Your task to perform on an android device: turn off javascript in the chrome app Image 0: 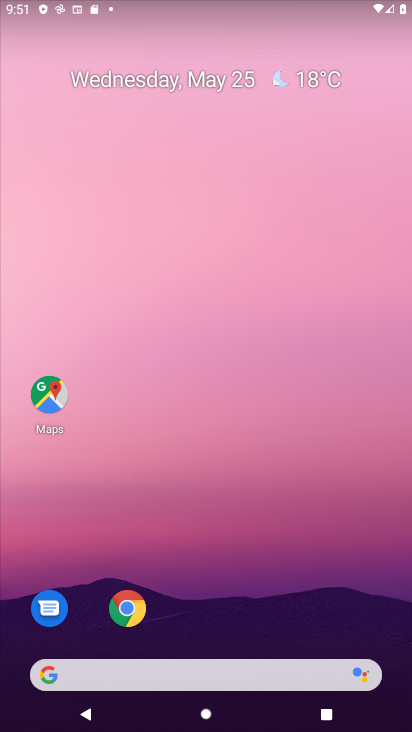
Step 0: click (133, 609)
Your task to perform on an android device: turn off javascript in the chrome app Image 1: 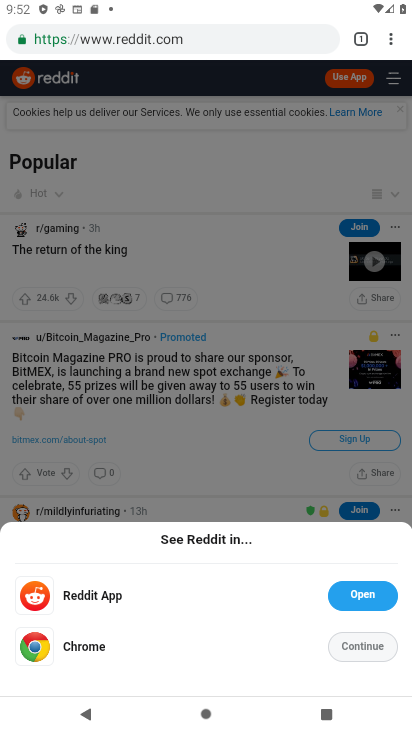
Step 1: click (383, 39)
Your task to perform on an android device: turn off javascript in the chrome app Image 2: 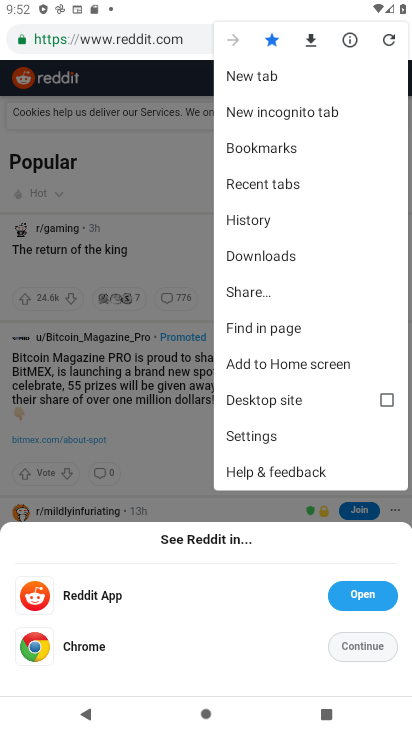
Step 2: click (275, 429)
Your task to perform on an android device: turn off javascript in the chrome app Image 3: 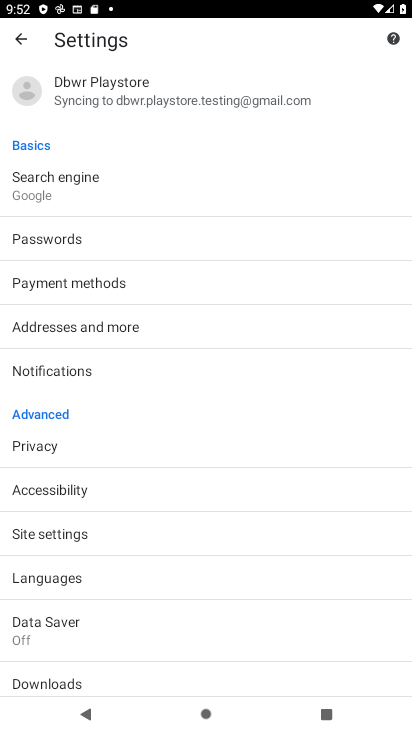
Step 3: click (122, 527)
Your task to perform on an android device: turn off javascript in the chrome app Image 4: 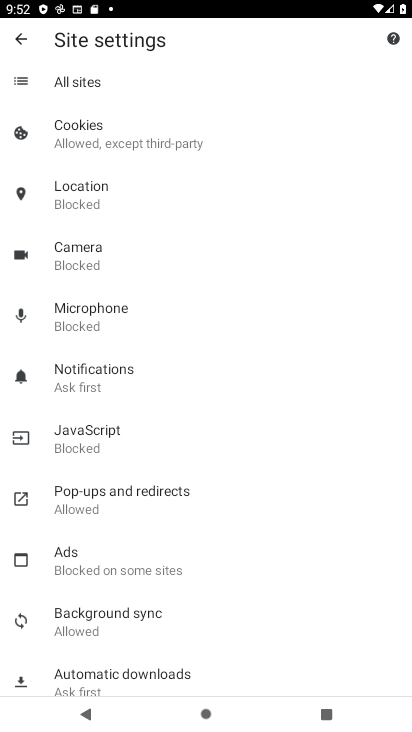
Step 4: click (130, 440)
Your task to perform on an android device: turn off javascript in the chrome app Image 5: 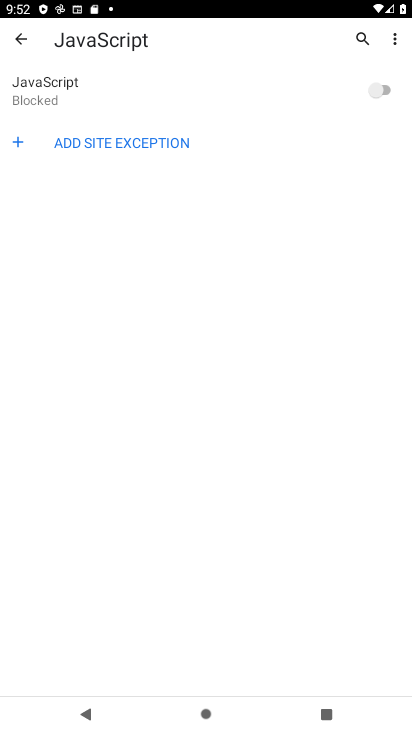
Step 5: task complete